Your task to perform on an android device: delete location history Image 0: 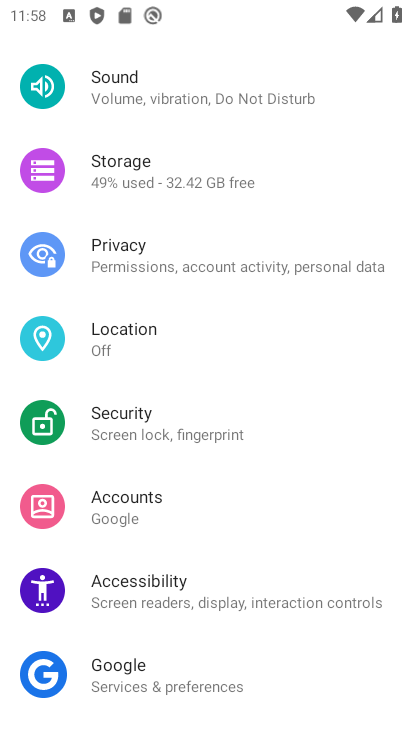
Step 0: press home button
Your task to perform on an android device: delete location history Image 1: 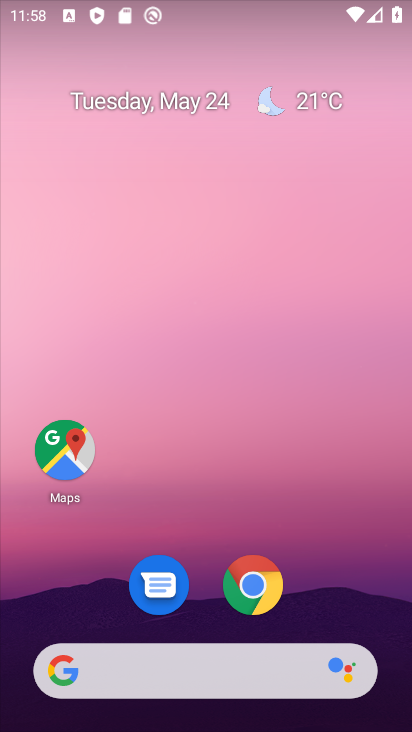
Step 1: click (67, 461)
Your task to perform on an android device: delete location history Image 2: 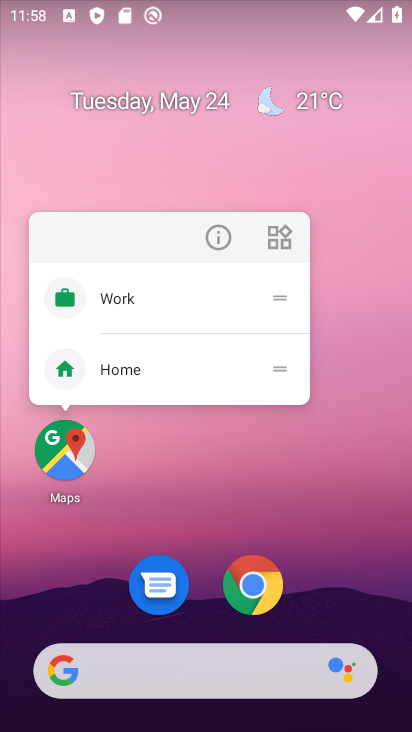
Step 2: click (67, 461)
Your task to perform on an android device: delete location history Image 3: 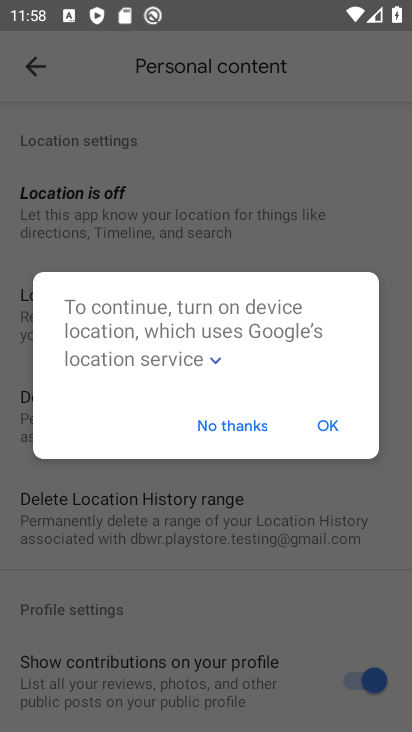
Step 3: click (257, 424)
Your task to perform on an android device: delete location history Image 4: 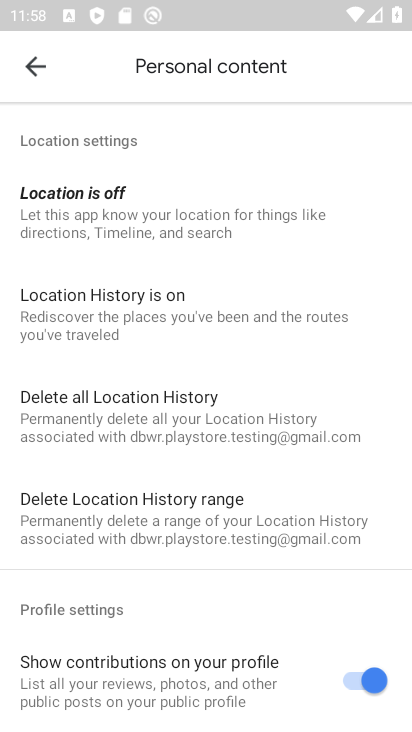
Step 4: click (150, 414)
Your task to perform on an android device: delete location history Image 5: 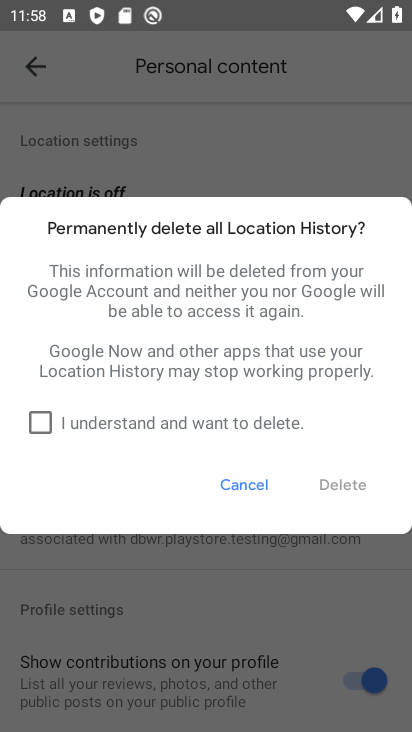
Step 5: click (49, 417)
Your task to perform on an android device: delete location history Image 6: 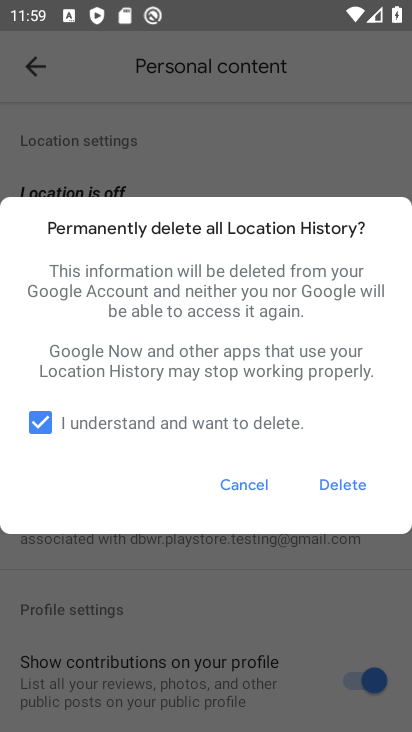
Step 6: click (338, 481)
Your task to perform on an android device: delete location history Image 7: 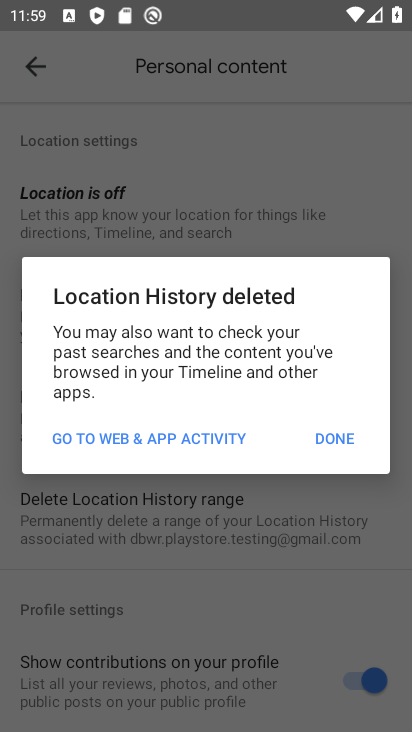
Step 7: click (338, 427)
Your task to perform on an android device: delete location history Image 8: 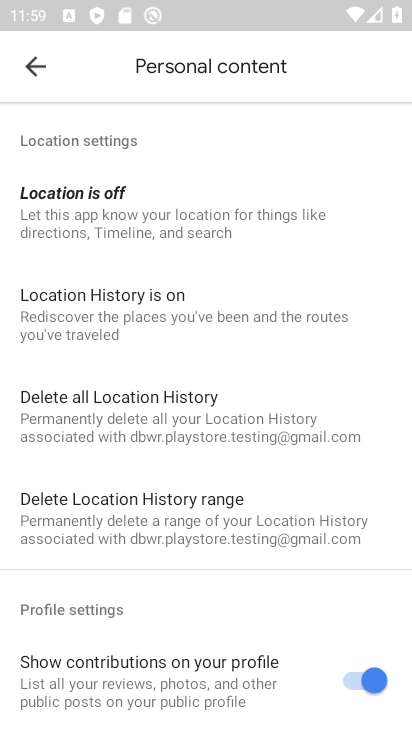
Step 8: task complete